Your task to perform on an android device: Show me the alarms in the clock app Image 0: 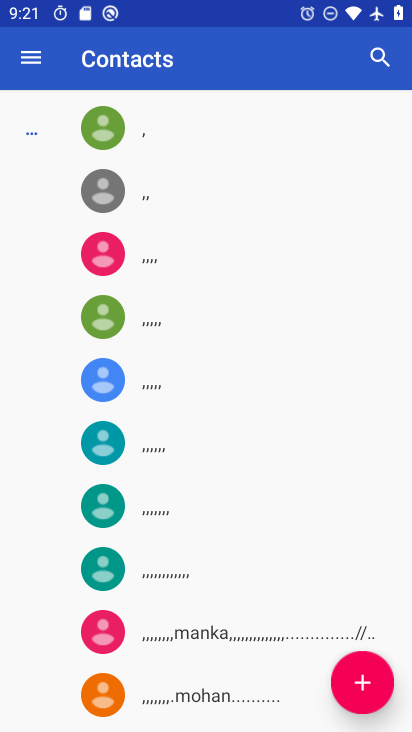
Step 0: press home button
Your task to perform on an android device: Show me the alarms in the clock app Image 1: 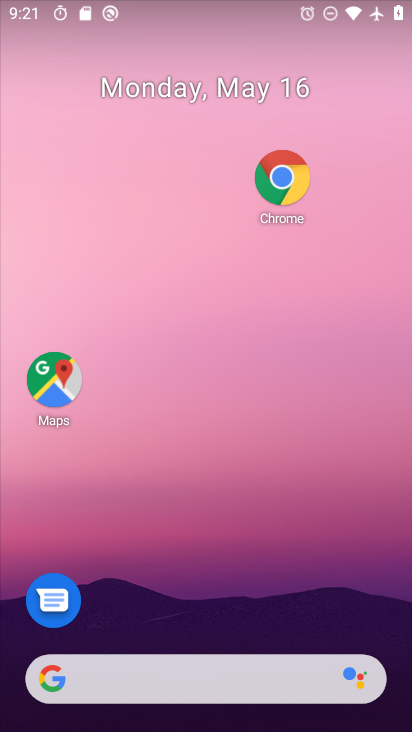
Step 1: drag from (200, 666) to (329, 262)
Your task to perform on an android device: Show me the alarms in the clock app Image 2: 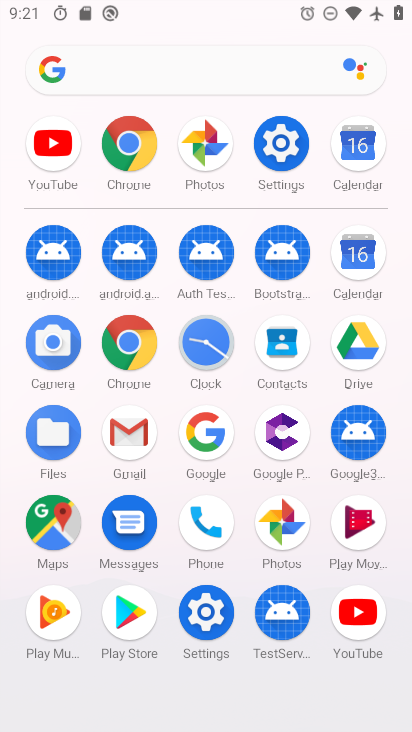
Step 2: click (205, 338)
Your task to perform on an android device: Show me the alarms in the clock app Image 3: 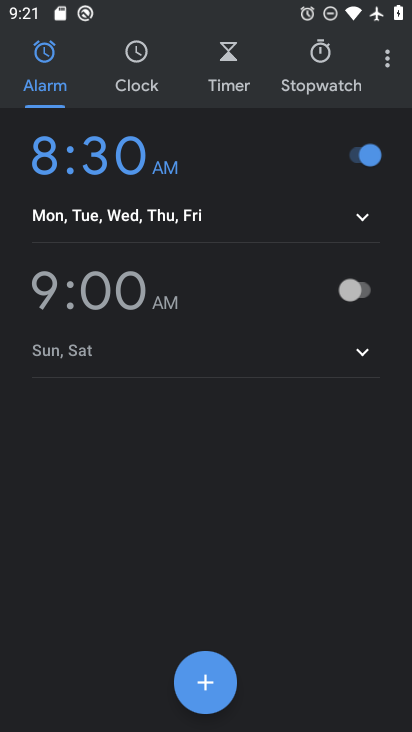
Step 3: task complete